Your task to perform on an android device: move an email to a new category in the gmail app Image 0: 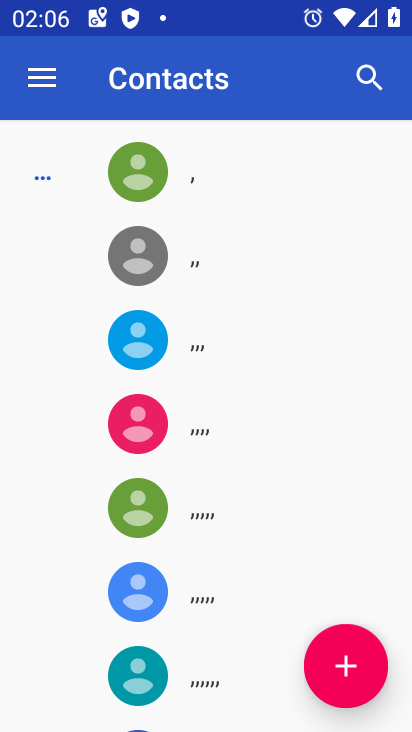
Step 0: press back button
Your task to perform on an android device: move an email to a new category in the gmail app Image 1: 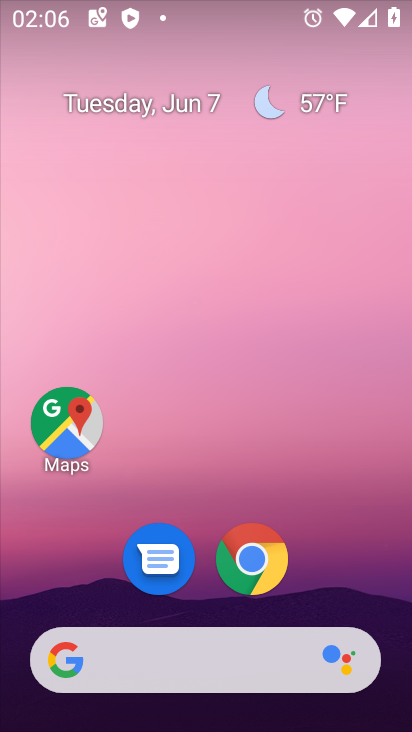
Step 1: drag from (330, 565) to (196, 150)
Your task to perform on an android device: move an email to a new category in the gmail app Image 2: 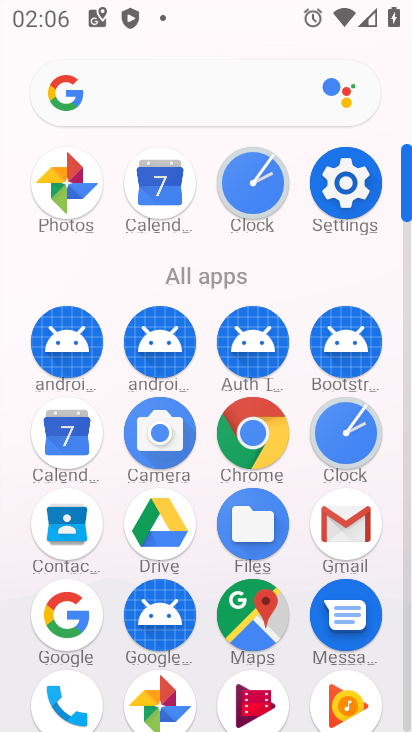
Step 2: click (347, 525)
Your task to perform on an android device: move an email to a new category in the gmail app Image 3: 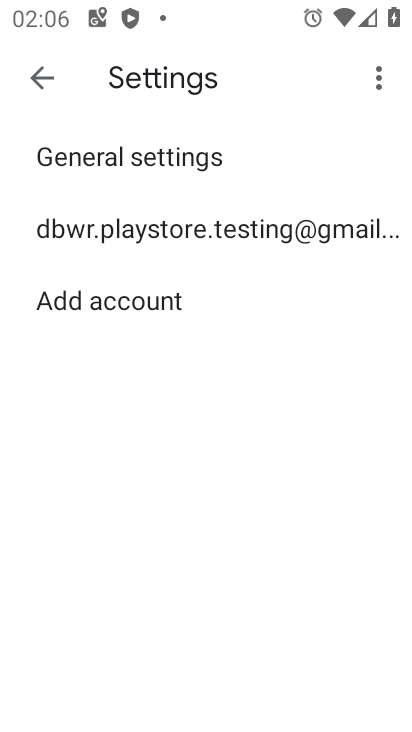
Step 3: click (77, 226)
Your task to perform on an android device: move an email to a new category in the gmail app Image 4: 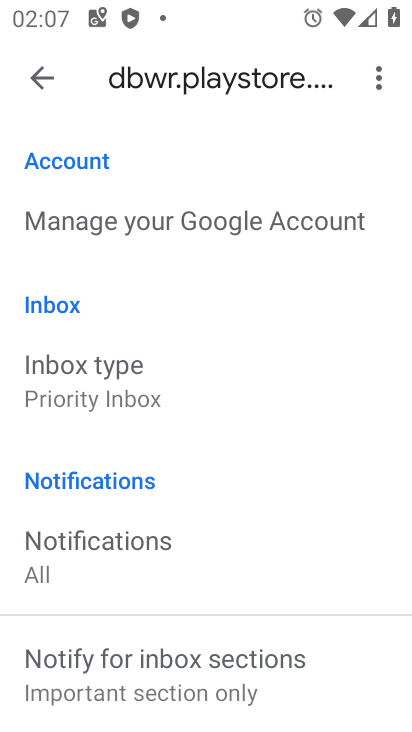
Step 4: drag from (112, 448) to (107, 329)
Your task to perform on an android device: move an email to a new category in the gmail app Image 5: 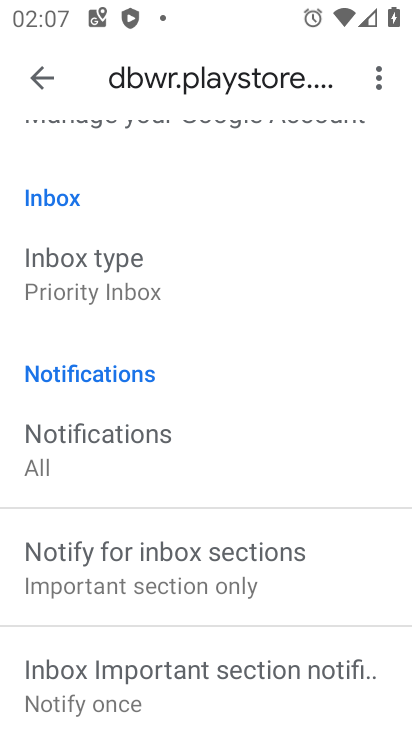
Step 5: click (34, 80)
Your task to perform on an android device: move an email to a new category in the gmail app Image 6: 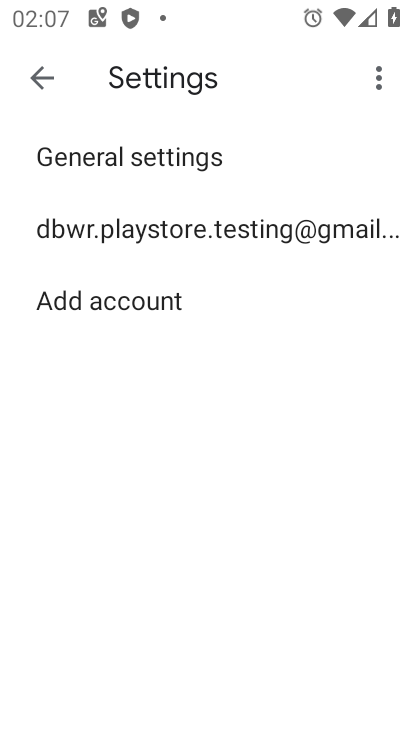
Step 6: click (36, 85)
Your task to perform on an android device: move an email to a new category in the gmail app Image 7: 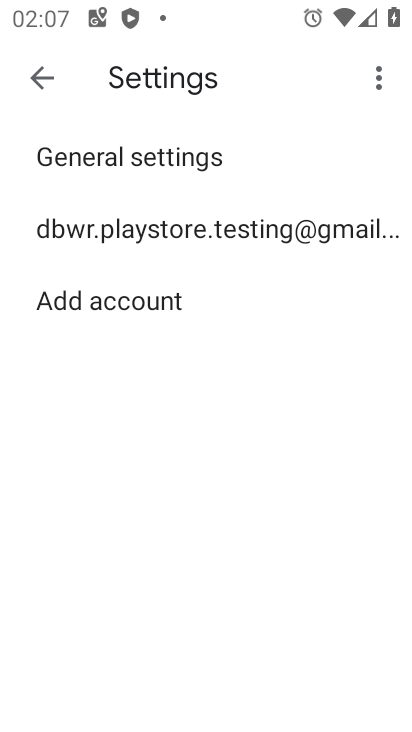
Step 7: click (37, 78)
Your task to perform on an android device: move an email to a new category in the gmail app Image 8: 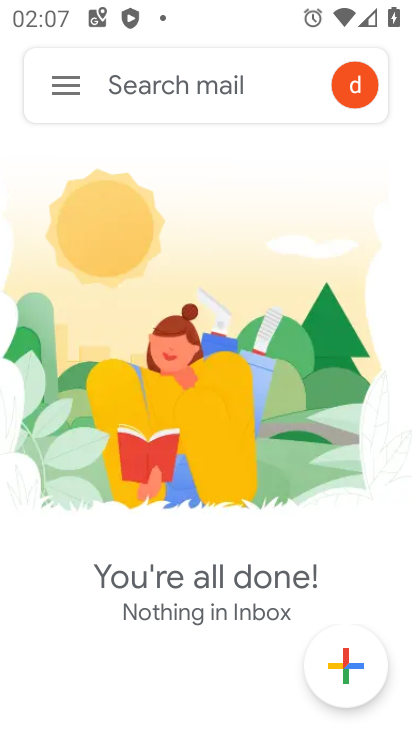
Step 8: click (71, 89)
Your task to perform on an android device: move an email to a new category in the gmail app Image 9: 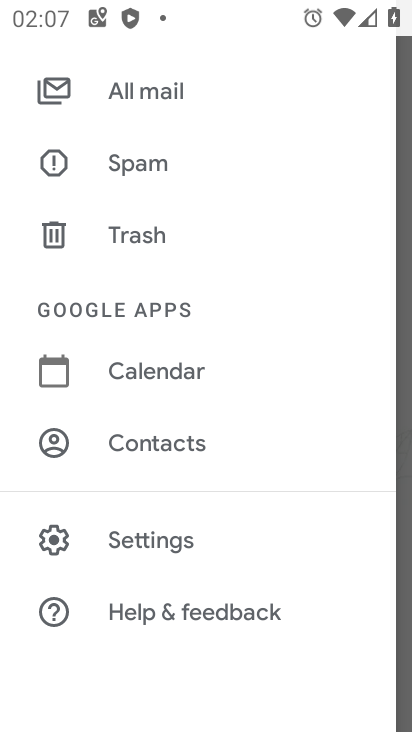
Step 9: click (130, 97)
Your task to perform on an android device: move an email to a new category in the gmail app Image 10: 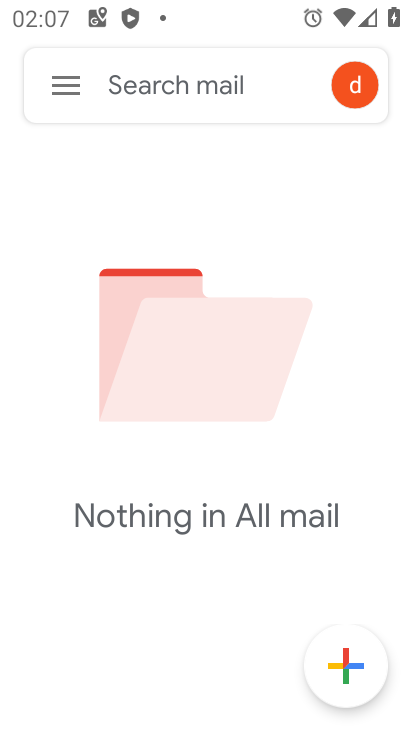
Step 10: click (67, 93)
Your task to perform on an android device: move an email to a new category in the gmail app Image 11: 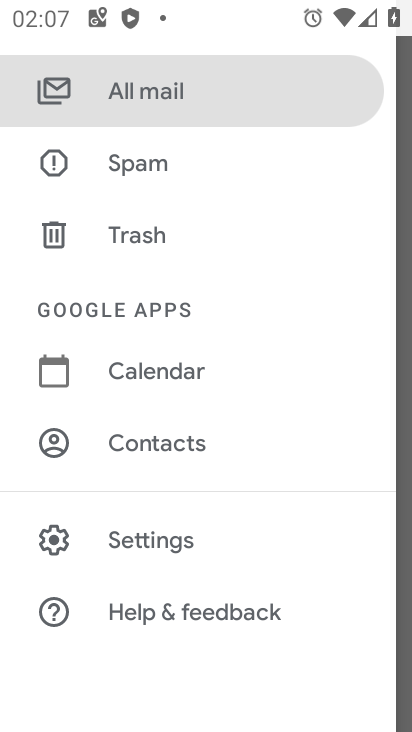
Step 11: drag from (182, 168) to (200, 293)
Your task to perform on an android device: move an email to a new category in the gmail app Image 12: 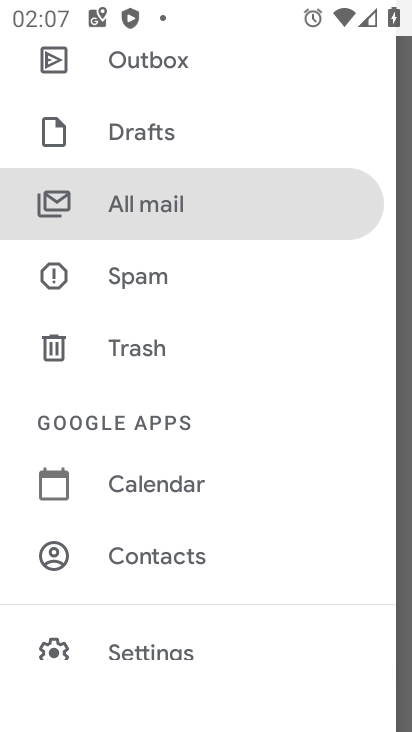
Step 12: drag from (176, 109) to (156, 259)
Your task to perform on an android device: move an email to a new category in the gmail app Image 13: 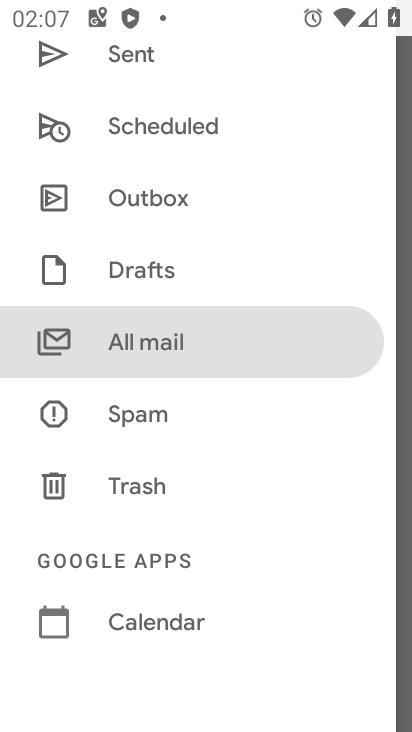
Step 13: drag from (154, 168) to (175, 351)
Your task to perform on an android device: move an email to a new category in the gmail app Image 14: 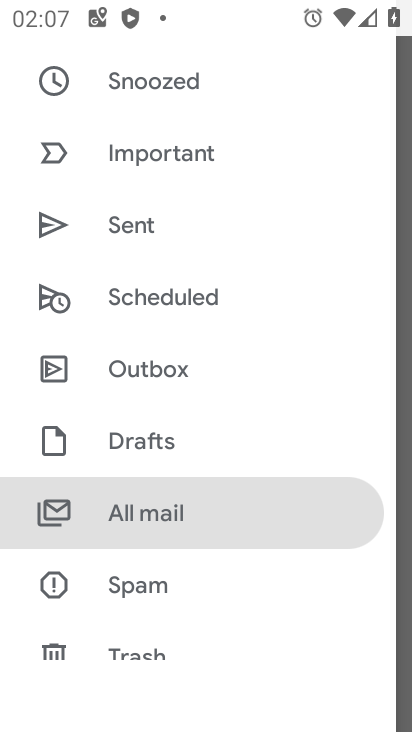
Step 14: drag from (147, 200) to (155, 329)
Your task to perform on an android device: move an email to a new category in the gmail app Image 15: 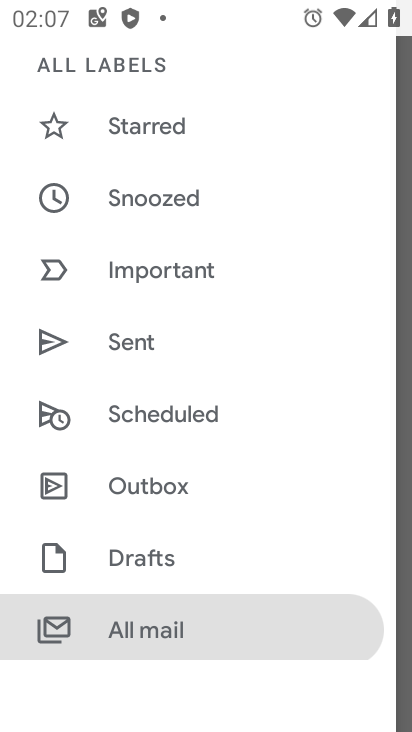
Step 15: drag from (123, 167) to (124, 320)
Your task to perform on an android device: move an email to a new category in the gmail app Image 16: 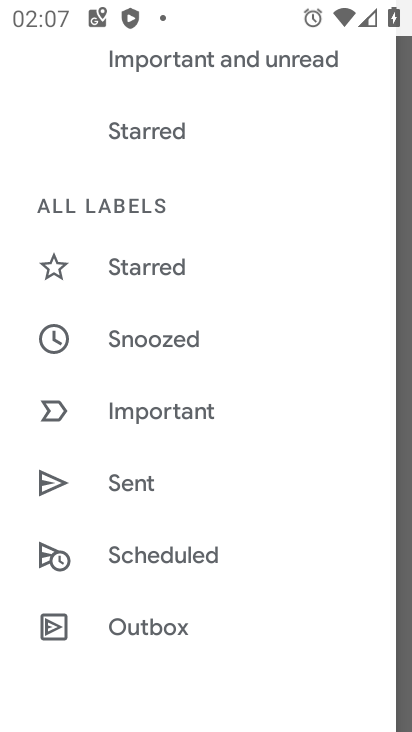
Step 16: drag from (127, 165) to (106, 291)
Your task to perform on an android device: move an email to a new category in the gmail app Image 17: 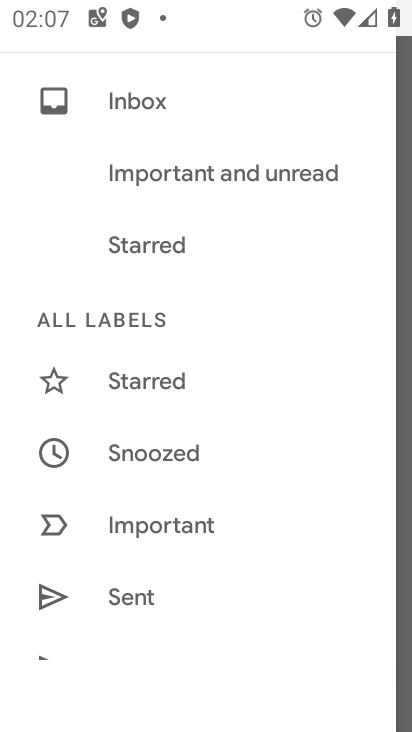
Step 17: click (136, 114)
Your task to perform on an android device: move an email to a new category in the gmail app Image 18: 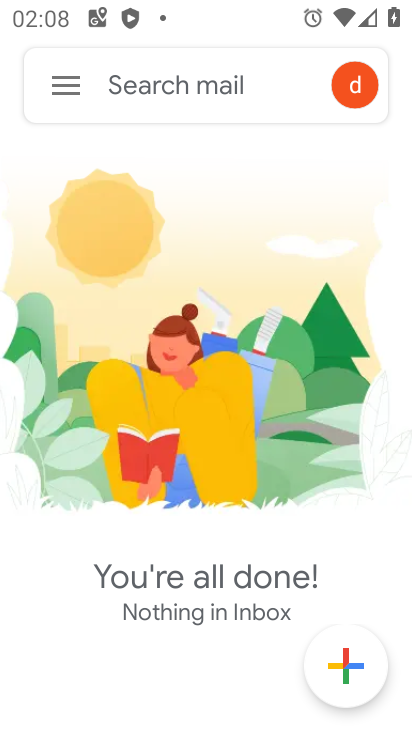
Step 18: task complete